Your task to perform on an android device: Search for sushi restaurants on Maps Image 0: 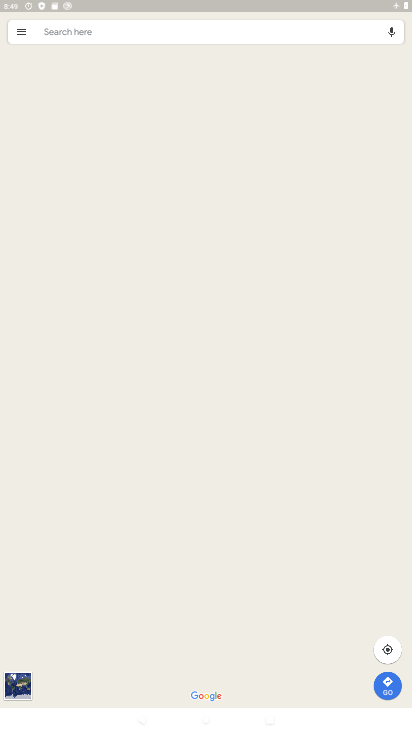
Step 0: press home button
Your task to perform on an android device: Search for sushi restaurants on Maps Image 1: 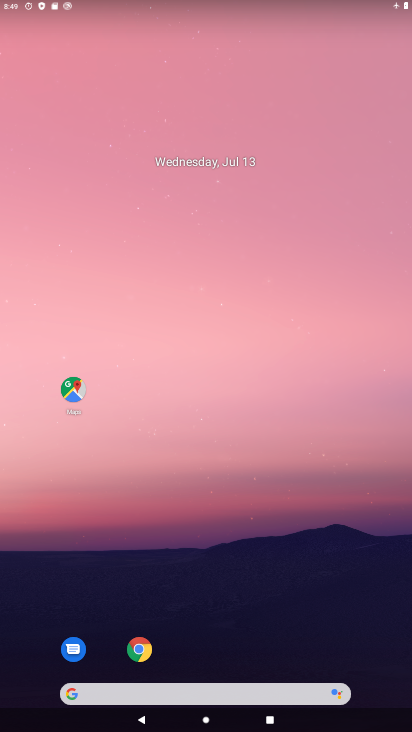
Step 1: drag from (261, 549) to (301, 56)
Your task to perform on an android device: Search for sushi restaurants on Maps Image 2: 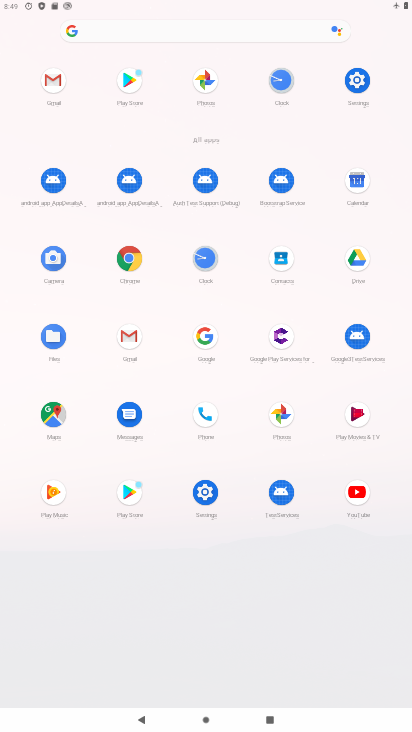
Step 2: click (47, 417)
Your task to perform on an android device: Search for sushi restaurants on Maps Image 3: 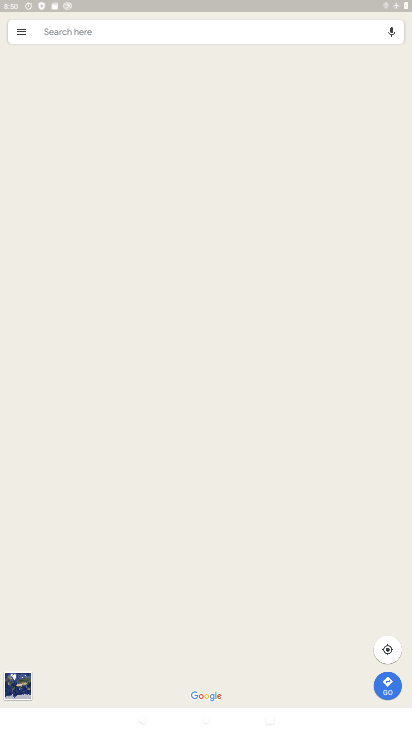
Step 3: press home button
Your task to perform on an android device: Search for sushi restaurants on Maps Image 4: 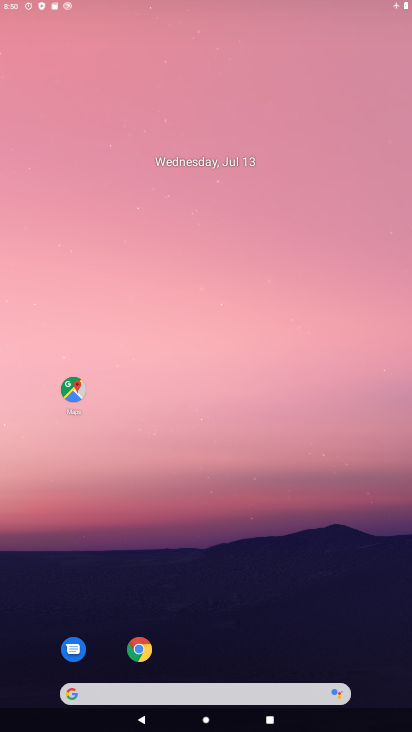
Step 4: drag from (282, 516) to (294, 63)
Your task to perform on an android device: Search for sushi restaurants on Maps Image 5: 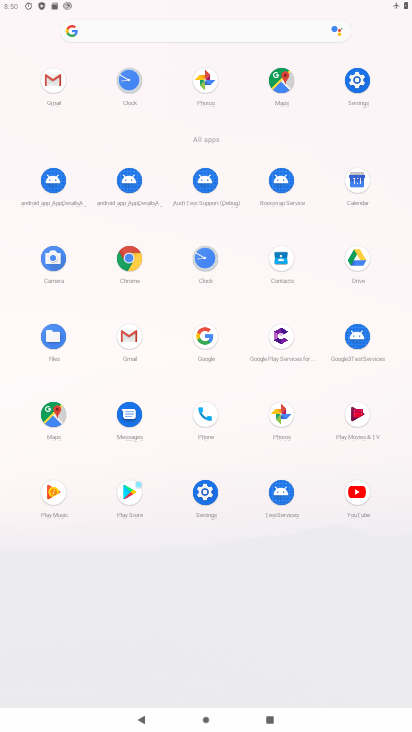
Step 5: click (55, 418)
Your task to perform on an android device: Search for sushi restaurants on Maps Image 6: 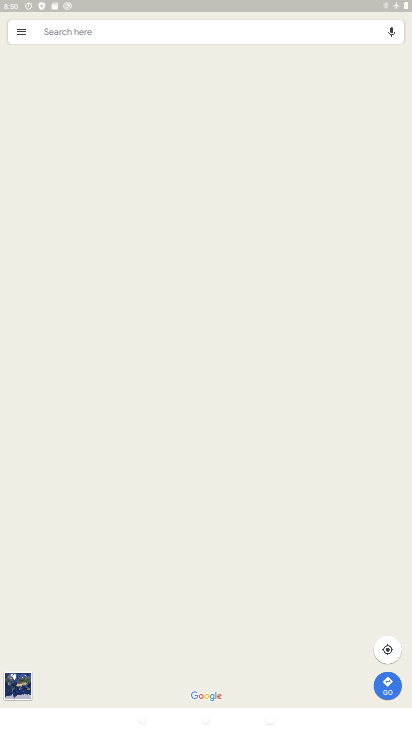
Step 6: click (269, 34)
Your task to perform on an android device: Search for sushi restaurants on Maps Image 7: 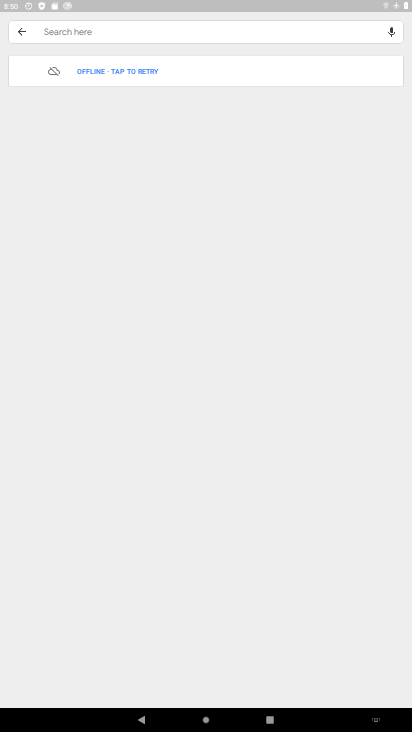
Step 7: task complete